Your task to perform on an android device: change your default location settings in chrome Image 0: 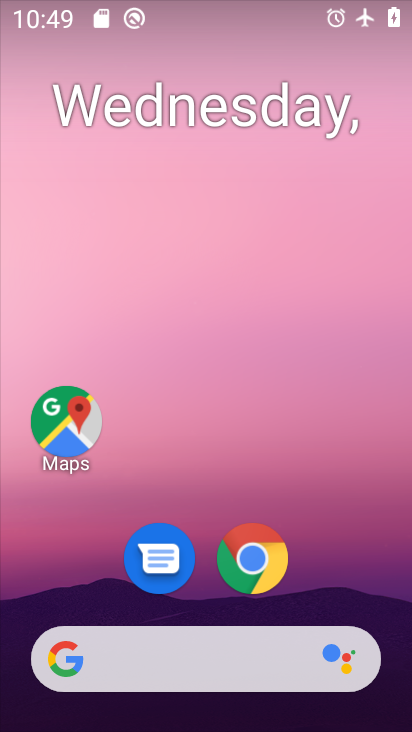
Step 0: drag from (393, 581) to (20, 167)
Your task to perform on an android device: change your default location settings in chrome Image 1: 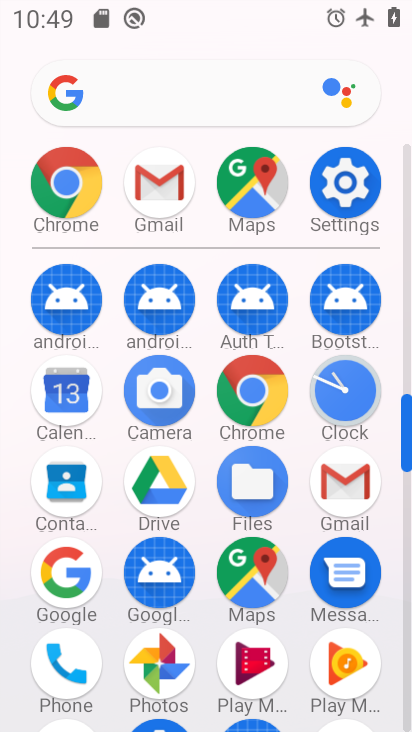
Step 1: click (267, 383)
Your task to perform on an android device: change your default location settings in chrome Image 2: 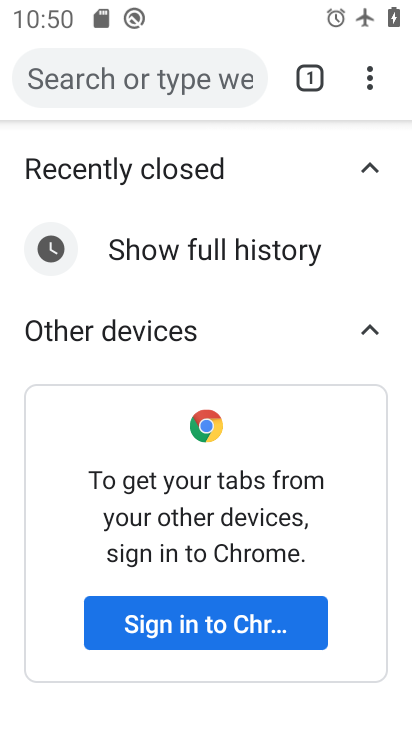
Step 2: click (369, 89)
Your task to perform on an android device: change your default location settings in chrome Image 3: 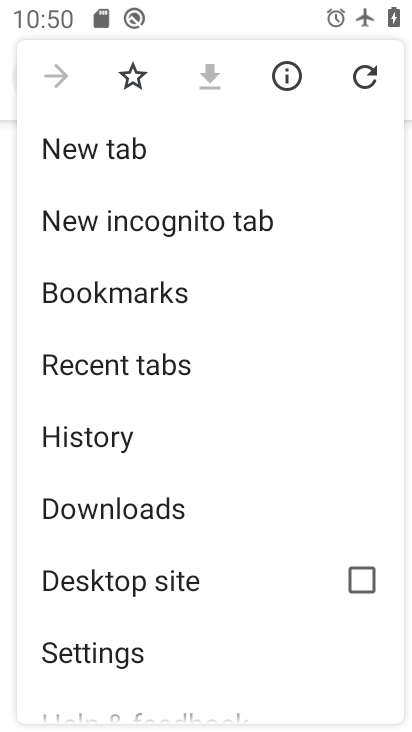
Step 3: drag from (321, 339) to (328, 270)
Your task to perform on an android device: change your default location settings in chrome Image 4: 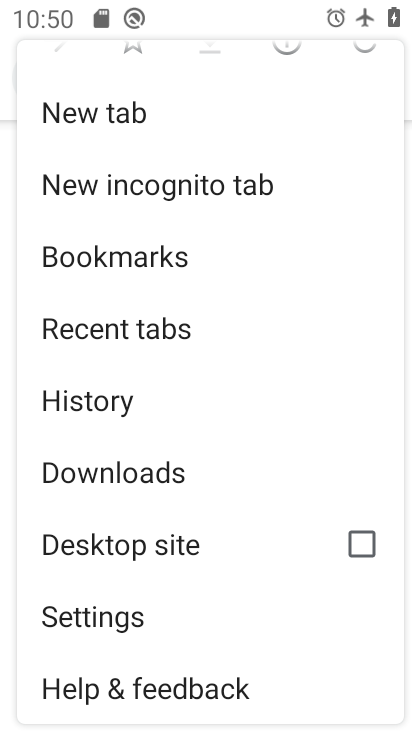
Step 4: click (197, 603)
Your task to perform on an android device: change your default location settings in chrome Image 5: 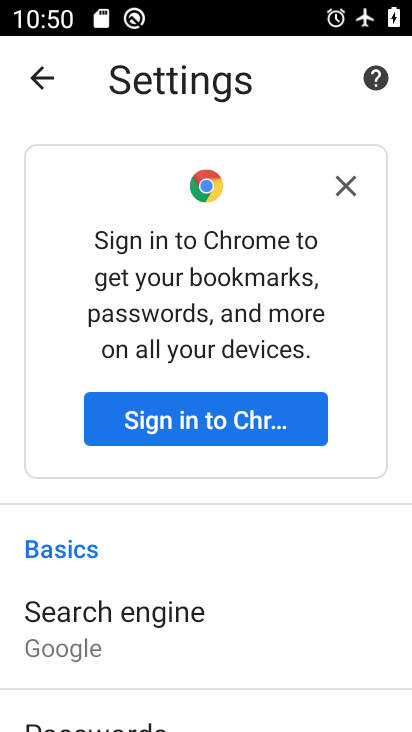
Step 5: drag from (320, 570) to (328, 289)
Your task to perform on an android device: change your default location settings in chrome Image 6: 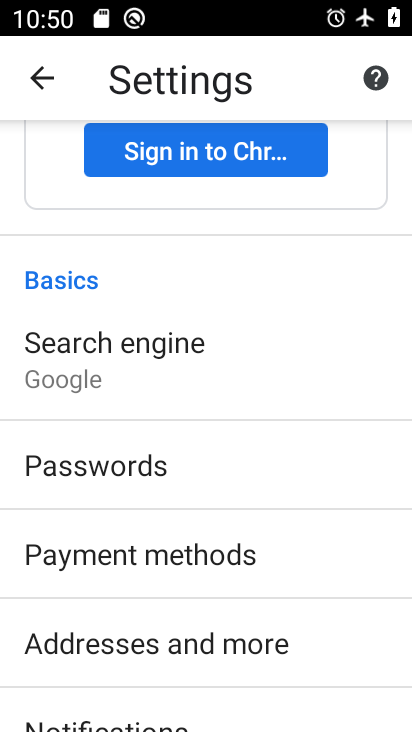
Step 6: drag from (316, 483) to (317, 396)
Your task to perform on an android device: change your default location settings in chrome Image 7: 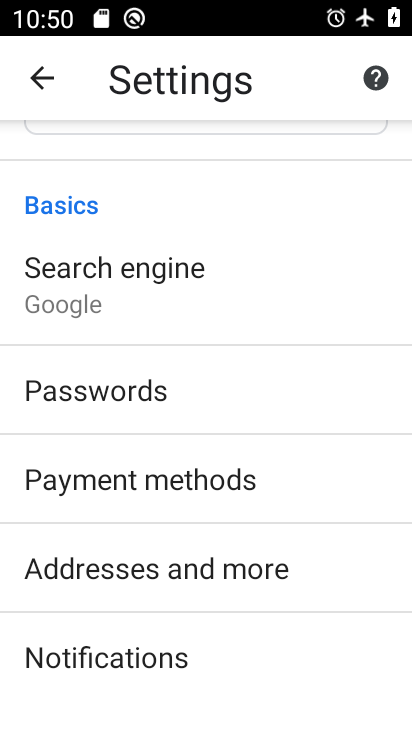
Step 7: drag from (317, 525) to (312, 337)
Your task to perform on an android device: change your default location settings in chrome Image 8: 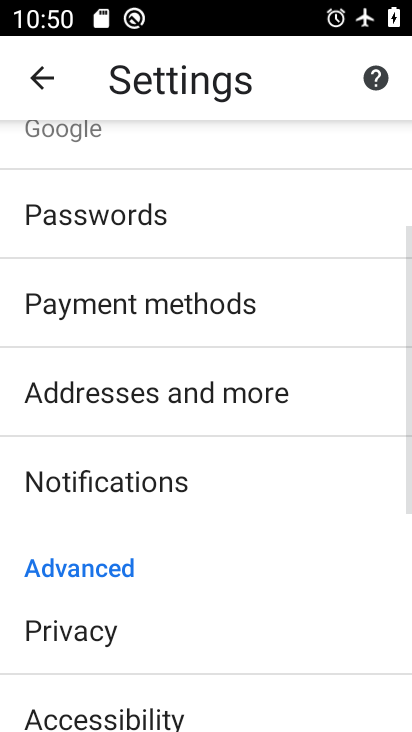
Step 8: drag from (312, 527) to (304, 341)
Your task to perform on an android device: change your default location settings in chrome Image 9: 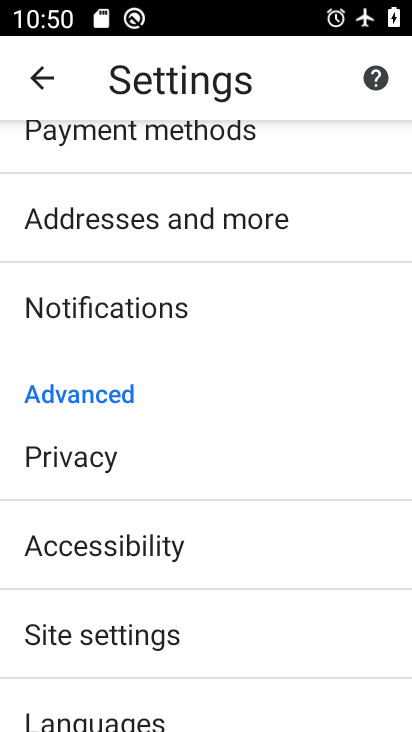
Step 9: click (281, 633)
Your task to perform on an android device: change your default location settings in chrome Image 10: 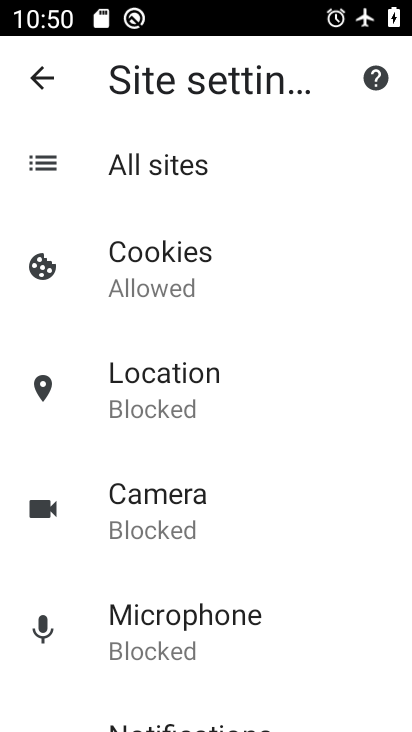
Step 10: click (235, 400)
Your task to perform on an android device: change your default location settings in chrome Image 11: 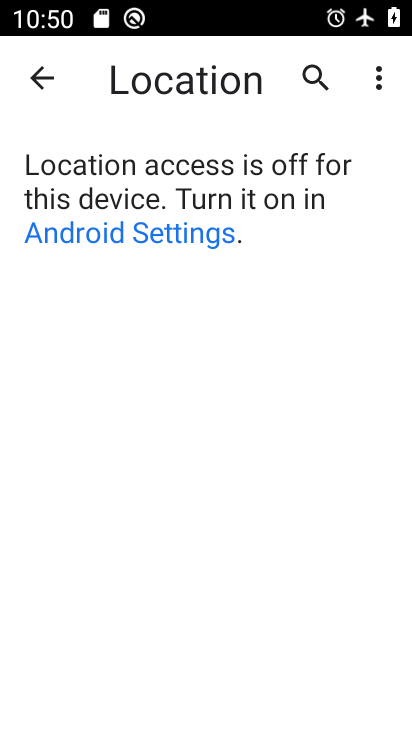
Step 11: click (186, 243)
Your task to perform on an android device: change your default location settings in chrome Image 12: 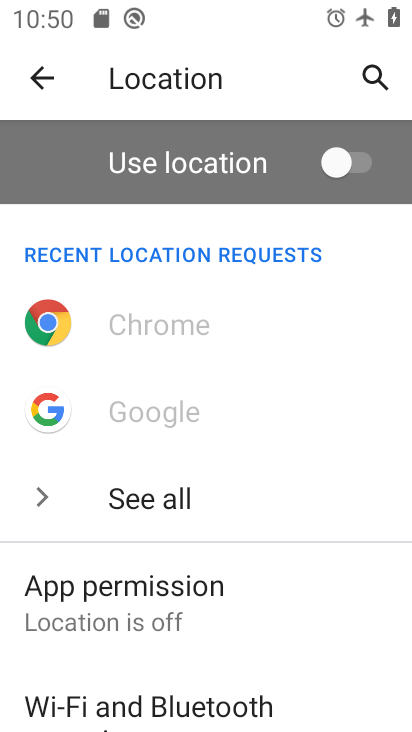
Step 12: click (333, 182)
Your task to perform on an android device: change your default location settings in chrome Image 13: 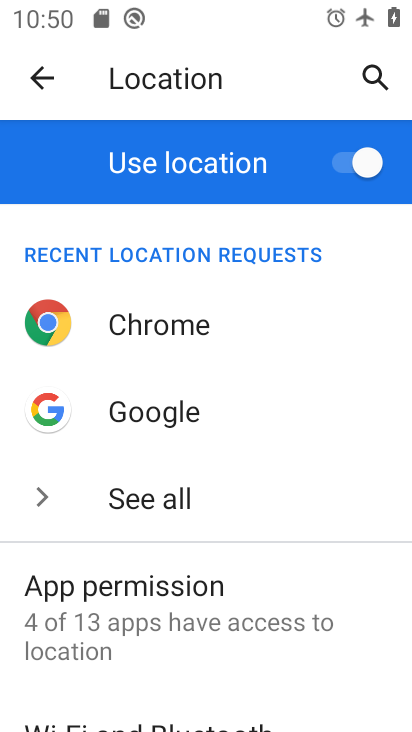
Step 13: task complete